Your task to perform on an android device: What's the weather today? Image 0: 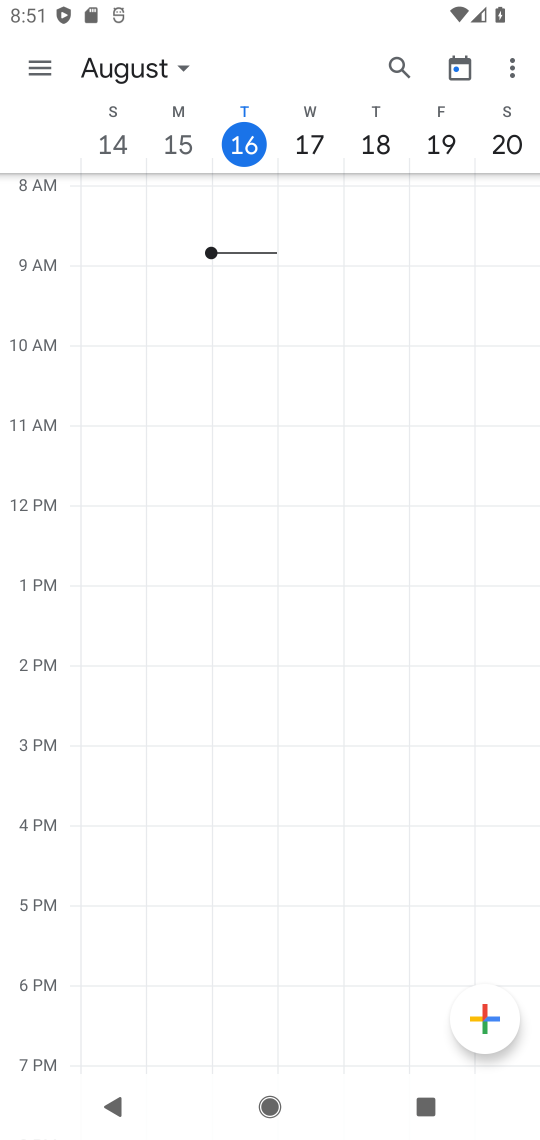
Step 0: press home button
Your task to perform on an android device: What's the weather today? Image 1: 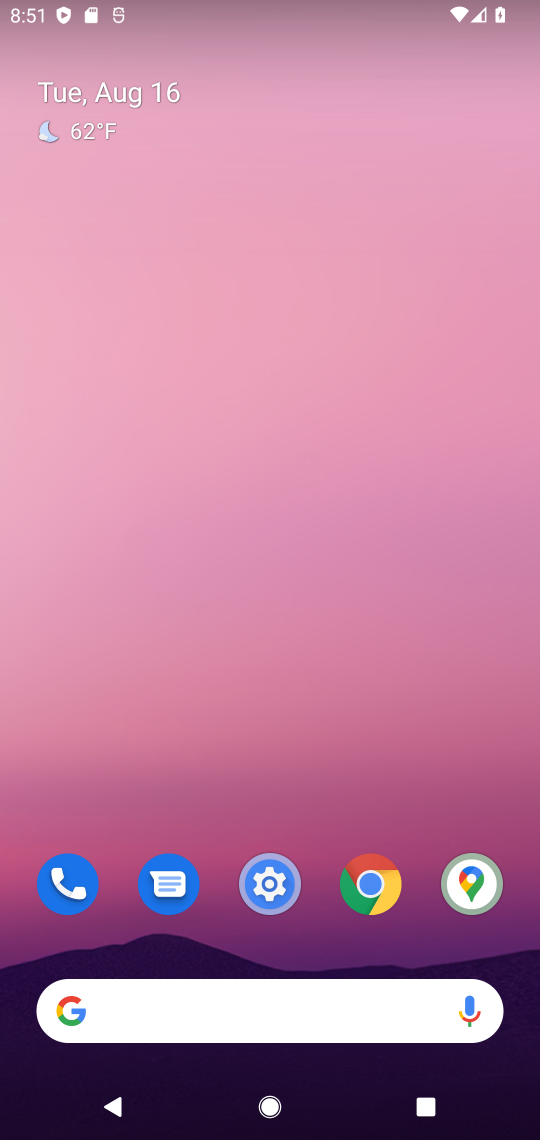
Step 1: click (76, 130)
Your task to perform on an android device: What's the weather today? Image 2: 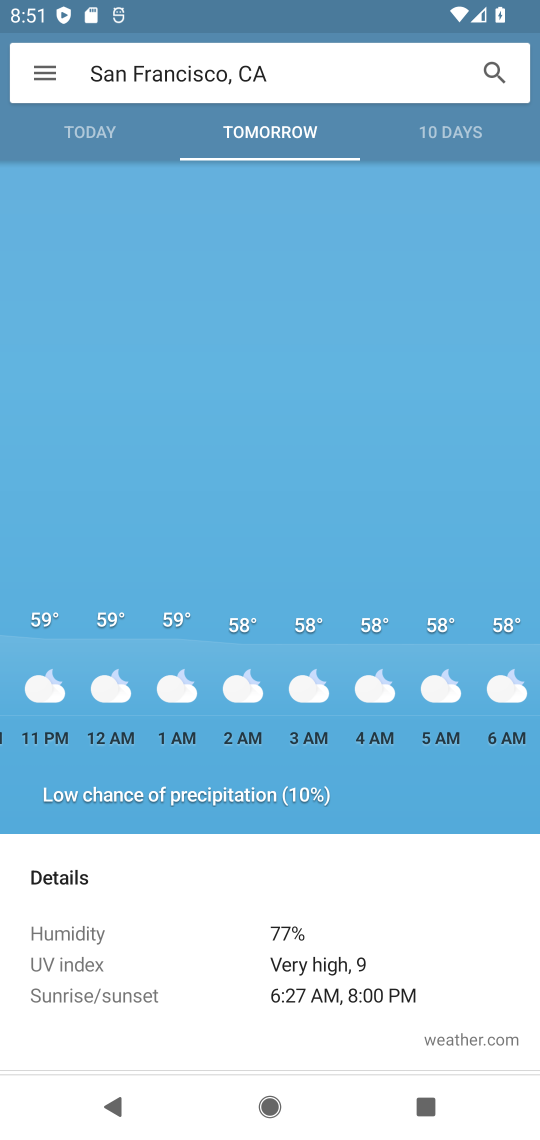
Step 2: click (75, 128)
Your task to perform on an android device: What's the weather today? Image 3: 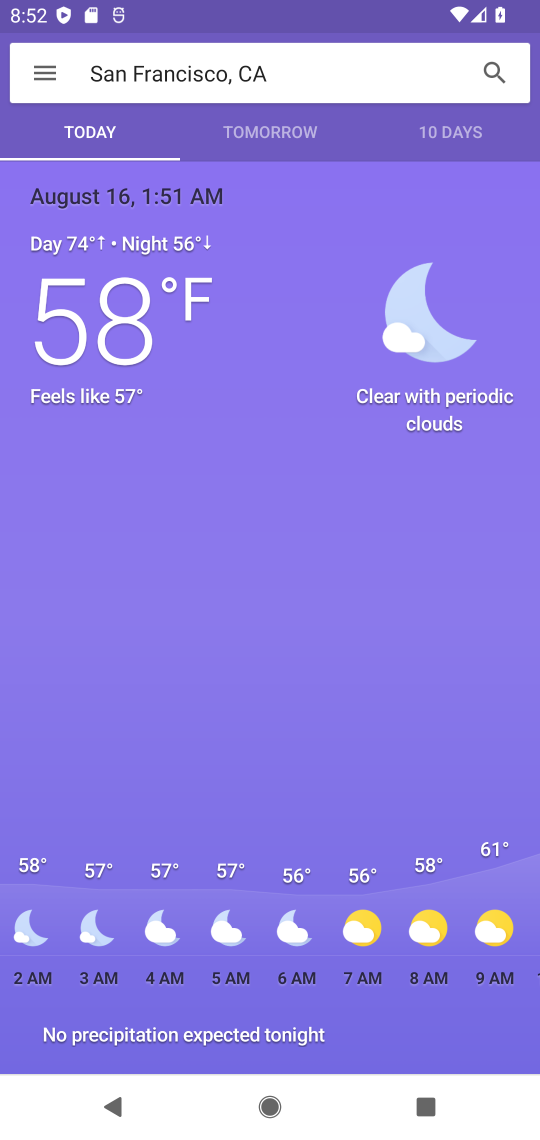
Step 3: task complete